Your task to perform on an android device: turn off wifi Image 0: 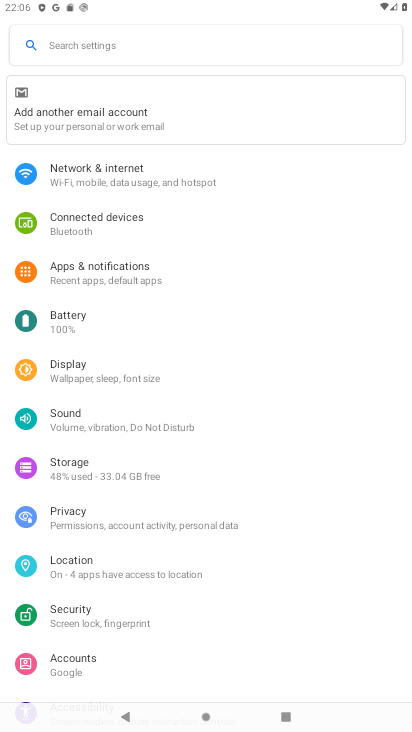
Step 0: press back button
Your task to perform on an android device: turn off wifi Image 1: 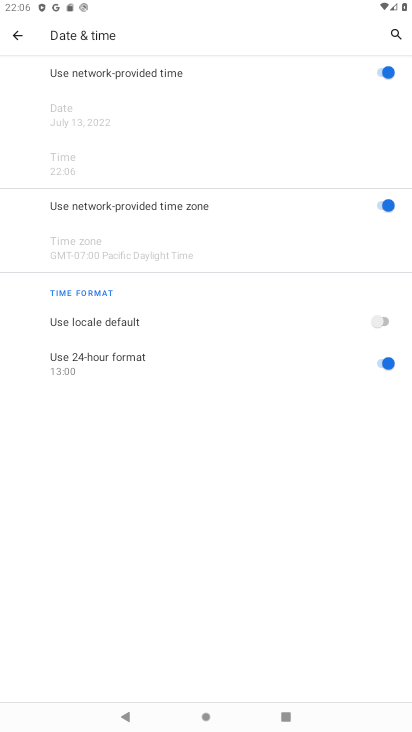
Step 1: click (5, 38)
Your task to perform on an android device: turn off wifi Image 2: 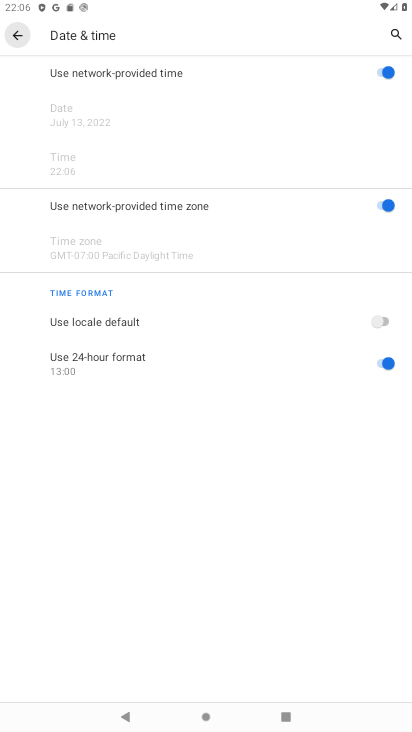
Step 2: click (6, 38)
Your task to perform on an android device: turn off wifi Image 3: 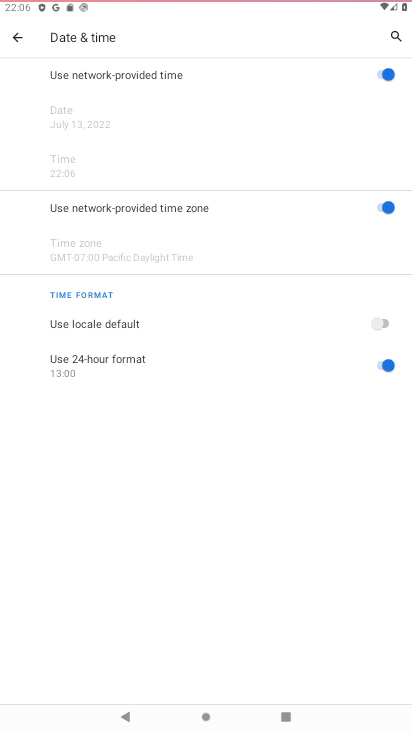
Step 3: click (6, 38)
Your task to perform on an android device: turn off wifi Image 4: 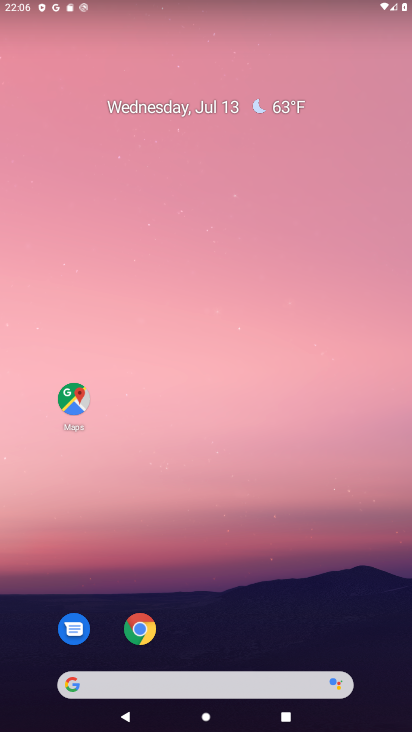
Step 4: drag from (178, 642) to (79, 28)
Your task to perform on an android device: turn off wifi Image 5: 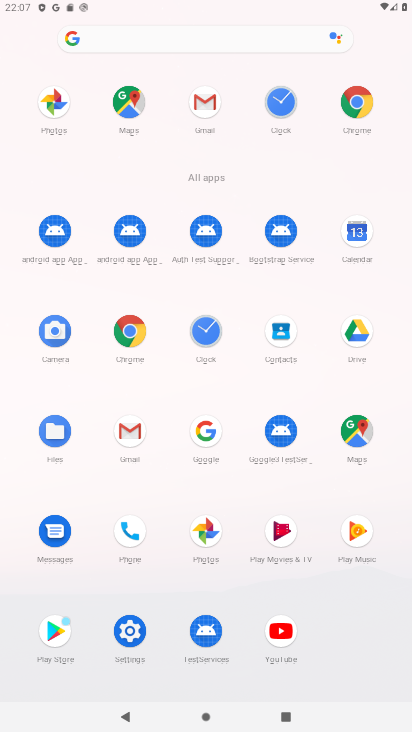
Step 5: click (136, 638)
Your task to perform on an android device: turn off wifi Image 6: 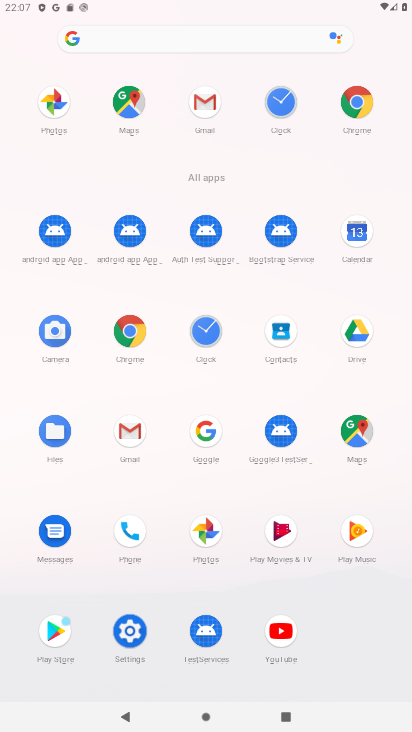
Step 6: click (139, 634)
Your task to perform on an android device: turn off wifi Image 7: 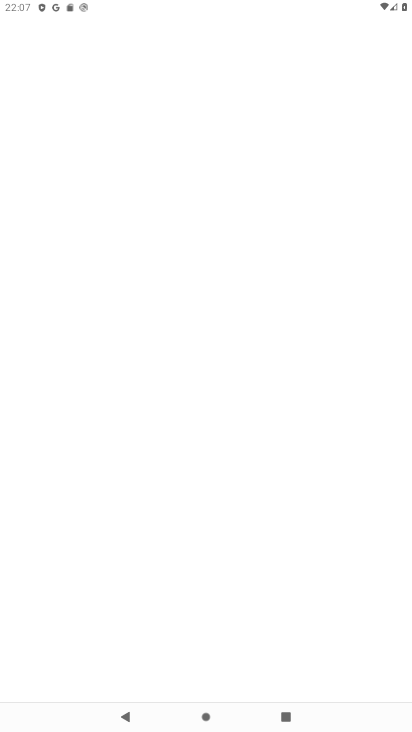
Step 7: click (139, 634)
Your task to perform on an android device: turn off wifi Image 8: 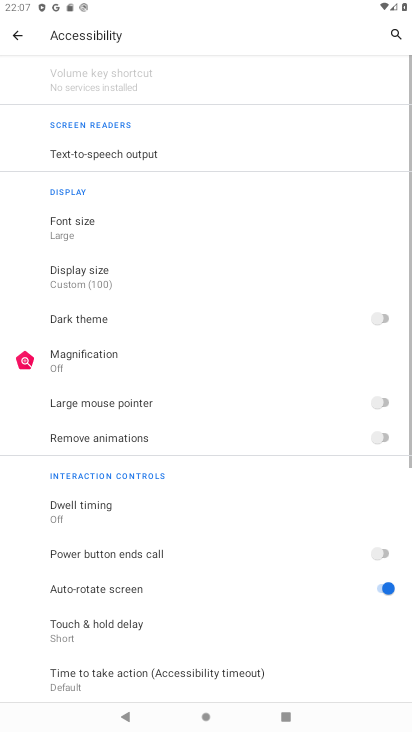
Step 8: click (103, 139)
Your task to perform on an android device: turn off wifi Image 9: 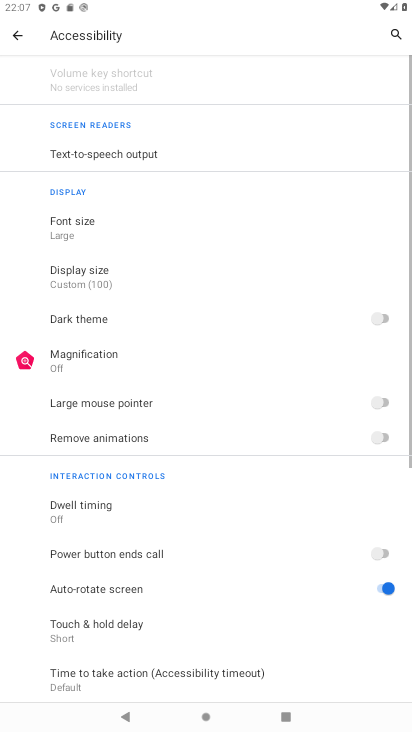
Step 9: click (19, 30)
Your task to perform on an android device: turn off wifi Image 10: 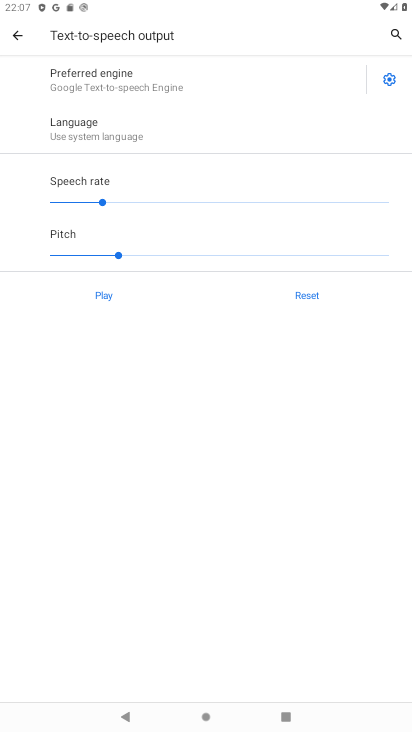
Step 10: click (7, 33)
Your task to perform on an android device: turn off wifi Image 11: 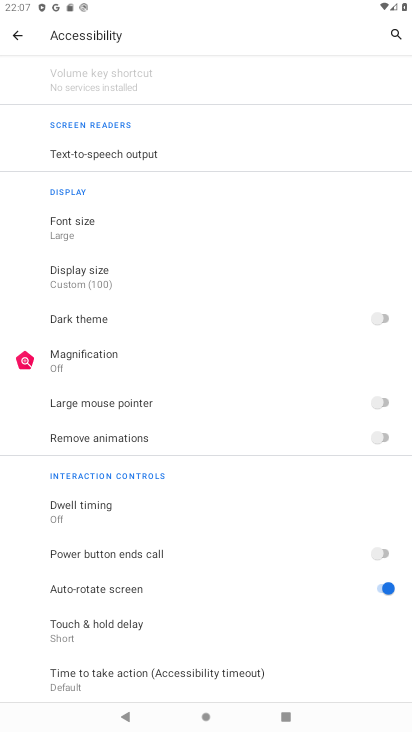
Step 11: click (15, 41)
Your task to perform on an android device: turn off wifi Image 12: 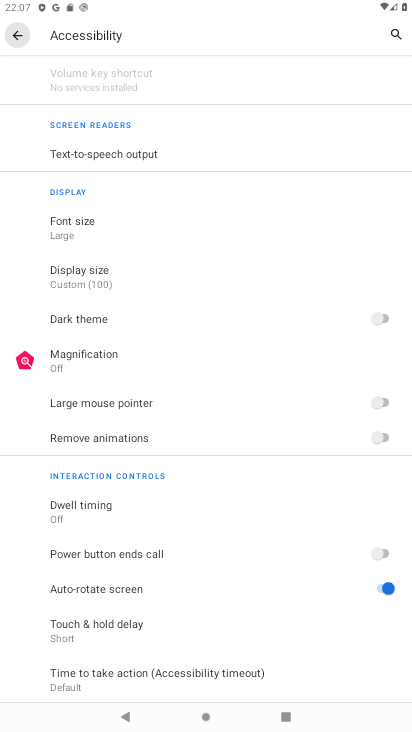
Step 12: click (27, 35)
Your task to perform on an android device: turn off wifi Image 13: 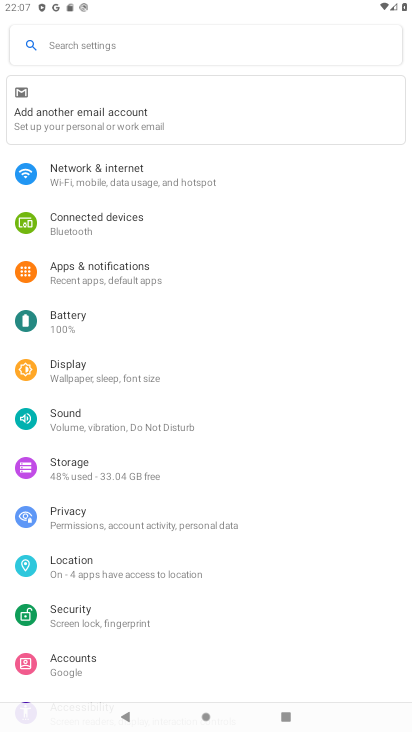
Step 13: click (105, 185)
Your task to perform on an android device: turn off wifi Image 14: 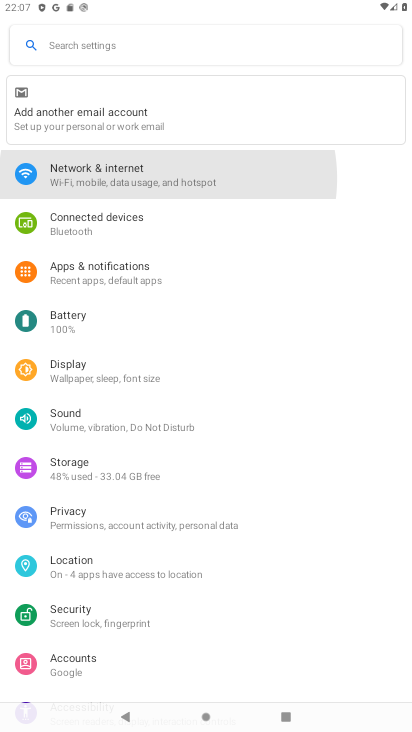
Step 14: click (105, 185)
Your task to perform on an android device: turn off wifi Image 15: 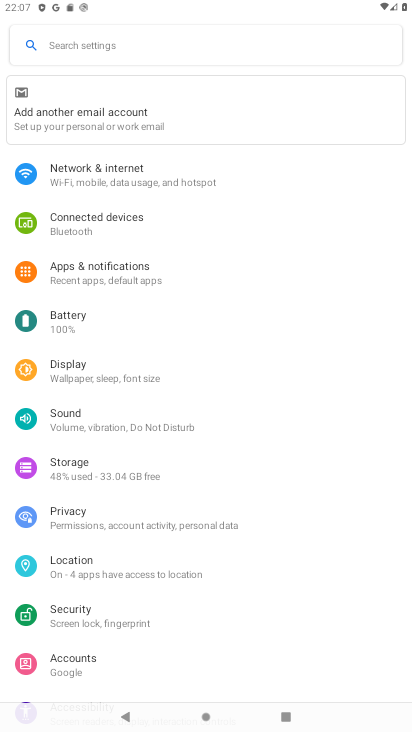
Step 15: click (105, 185)
Your task to perform on an android device: turn off wifi Image 16: 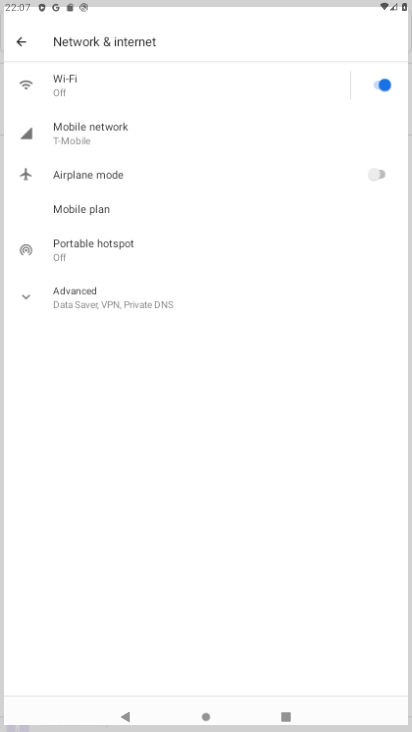
Step 16: click (106, 185)
Your task to perform on an android device: turn off wifi Image 17: 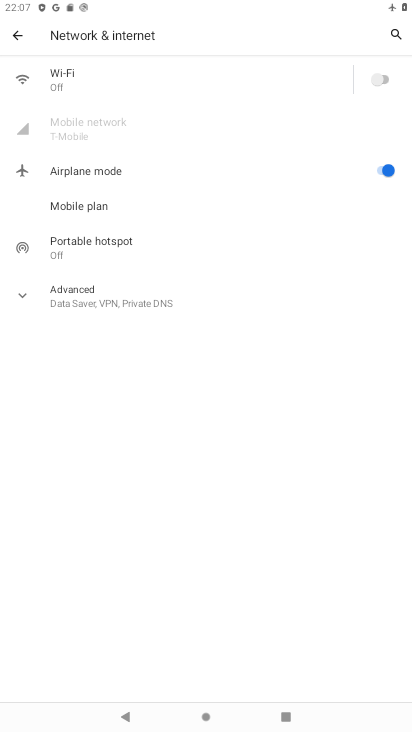
Step 17: task complete